Your task to perform on an android device: Do I have any events tomorrow? Image 0: 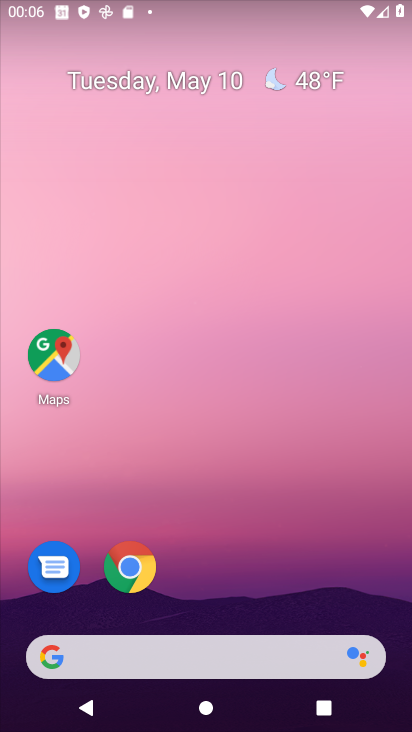
Step 0: drag from (227, 578) to (236, 72)
Your task to perform on an android device: Do I have any events tomorrow? Image 1: 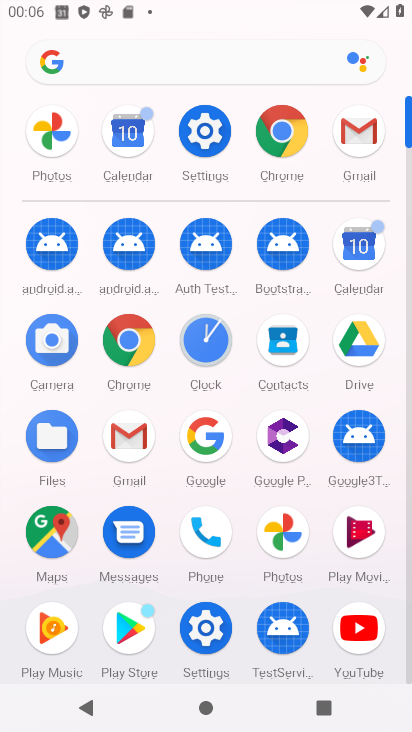
Step 1: click (126, 130)
Your task to perform on an android device: Do I have any events tomorrow? Image 2: 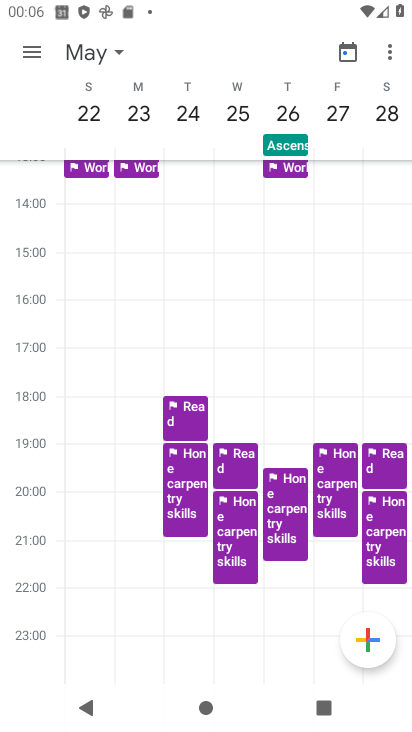
Step 2: click (119, 47)
Your task to perform on an android device: Do I have any events tomorrow? Image 3: 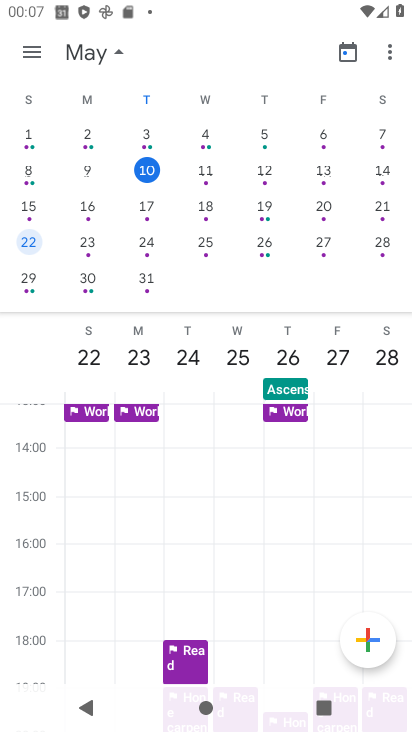
Step 3: click (210, 165)
Your task to perform on an android device: Do I have any events tomorrow? Image 4: 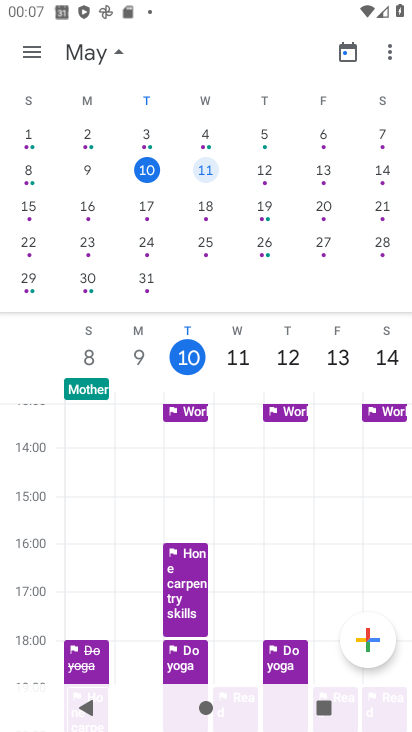
Step 4: click (30, 49)
Your task to perform on an android device: Do I have any events tomorrow? Image 5: 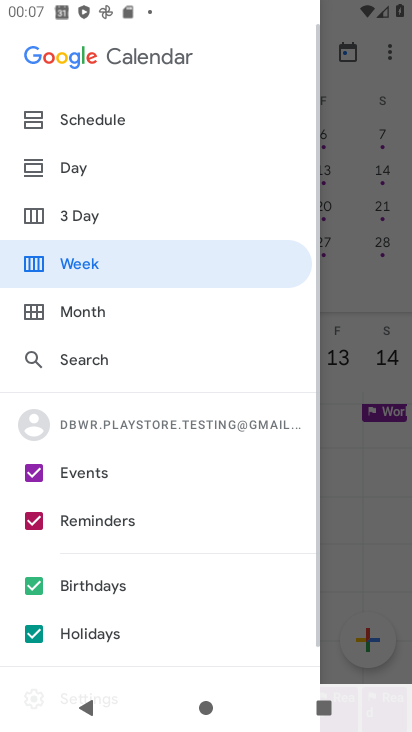
Step 5: click (84, 116)
Your task to perform on an android device: Do I have any events tomorrow? Image 6: 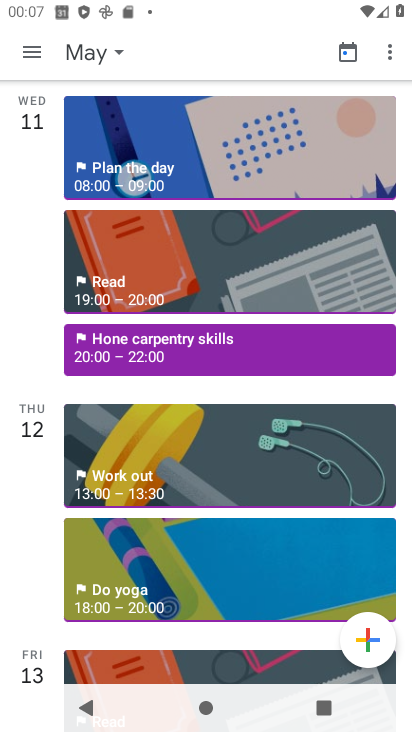
Step 6: task complete